Your task to perform on an android device: Open the Play Movies app and select the watchlist tab. Image 0: 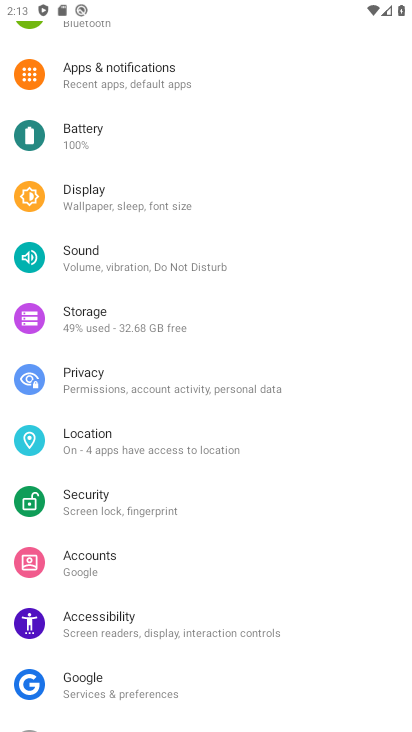
Step 0: press home button
Your task to perform on an android device: Open the Play Movies app and select the watchlist tab. Image 1: 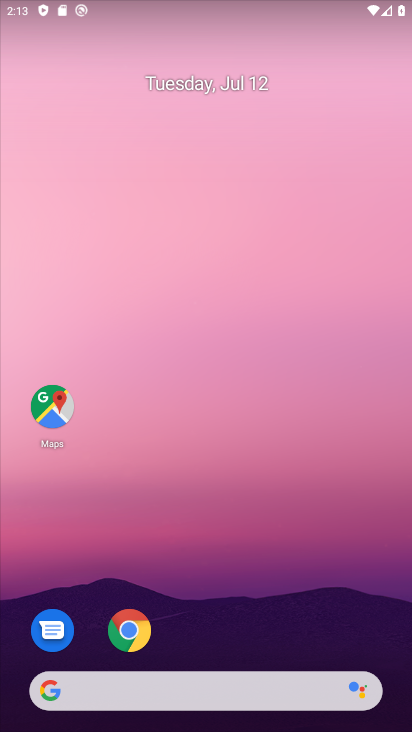
Step 1: drag from (366, 629) to (336, 156)
Your task to perform on an android device: Open the Play Movies app and select the watchlist tab. Image 2: 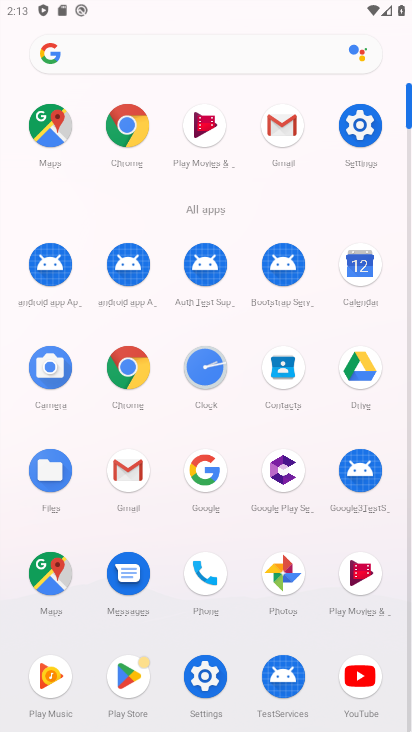
Step 2: click (358, 572)
Your task to perform on an android device: Open the Play Movies app and select the watchlist tab. Image 3: 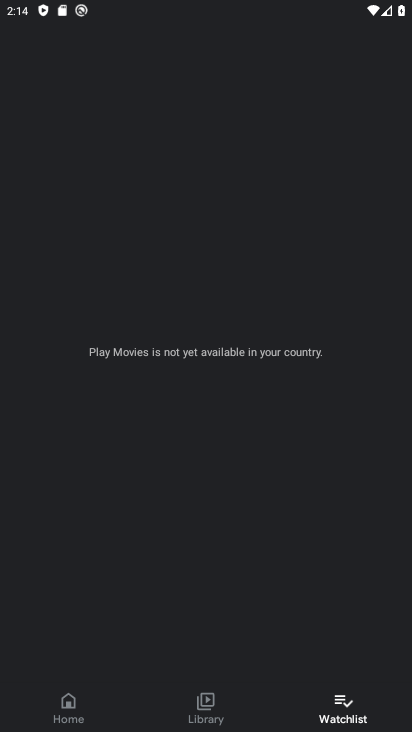
Step 3: task complete